Your task to perform on an android device: allow cookies in the chrome app Image 0: 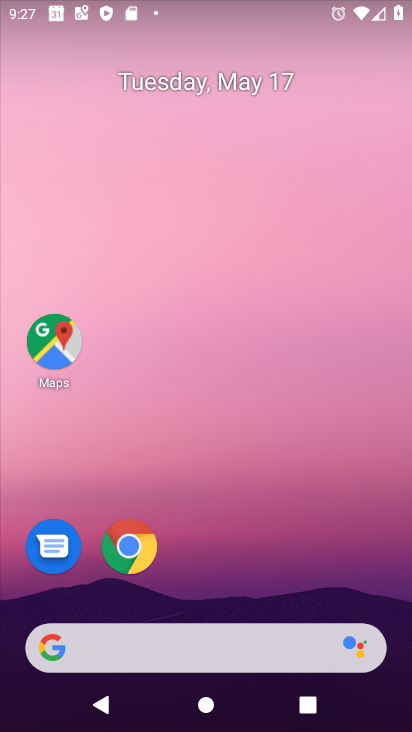
Step 0: click (129, 551)
Your task to perform on an android device: allow cookies in the chrome app Image 1: 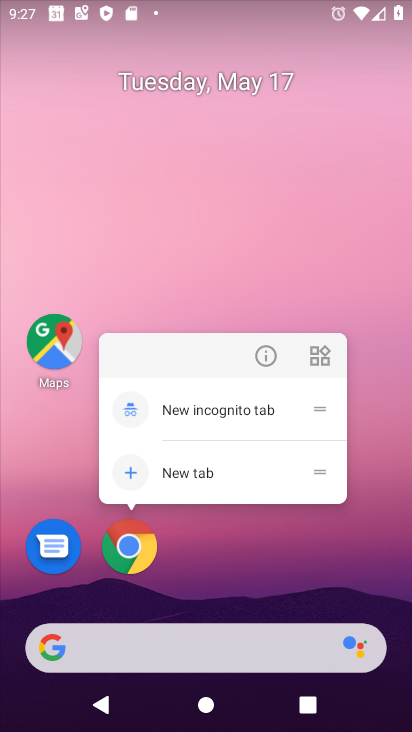
Step 1: click (128, 551)
Your task to perform on an android device: allow cookies in the chrome app Image 2: 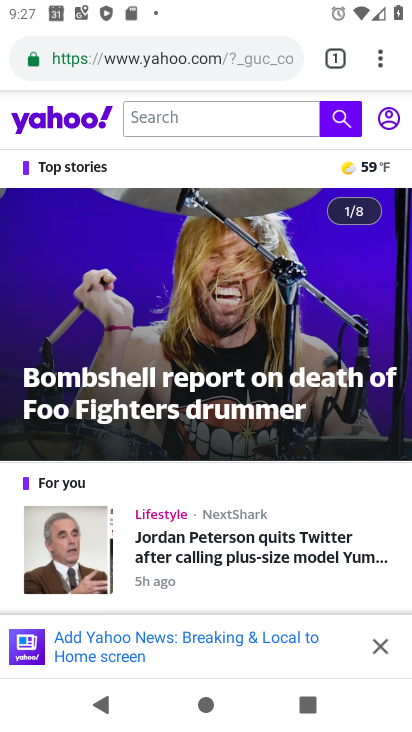
Step 2: click (386, 53)
Your task to perform on an android device: allow cookies in the chrome app Image 3: 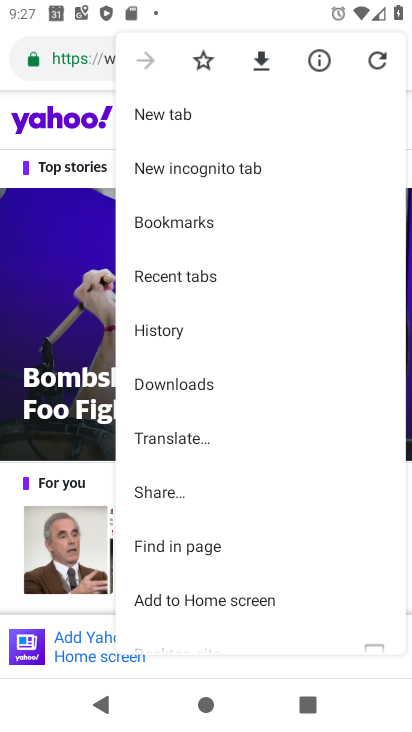
Step 3: drag from (257, 554) to (279, 311)
Your task to perform on an android device: allow cookies in the chrome app Image 4: 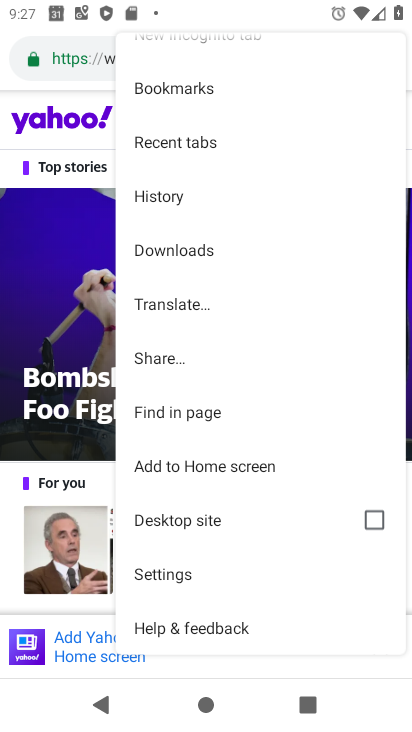
Step 4: click (219, 565)
Your task to perform on an android device: allow cookies in the chrome app Image 5: 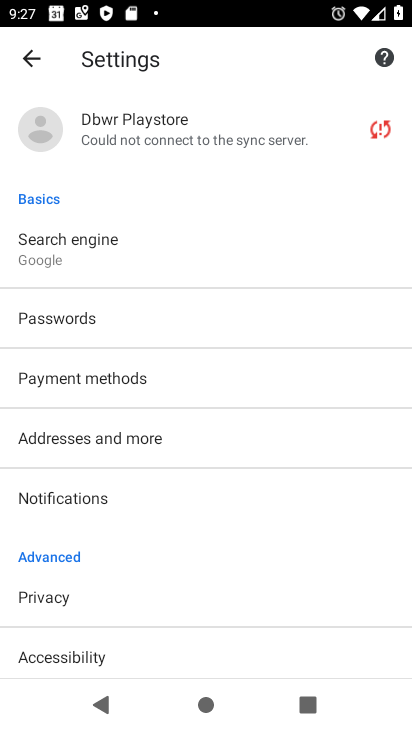
Step 5: drag from (212, 581) to (241, 244)
Your task to perform on an android device: allow cookies in the chrome app Image 6: 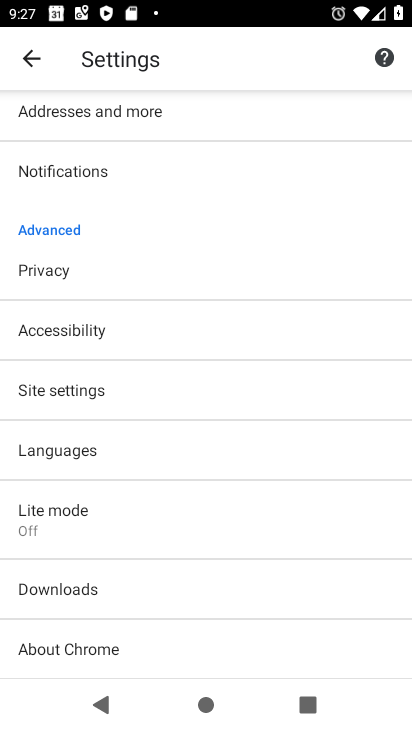
Step 6: click (169, 390)
Your task to perform on an android device: allow cookies in the chrome app Image 7: 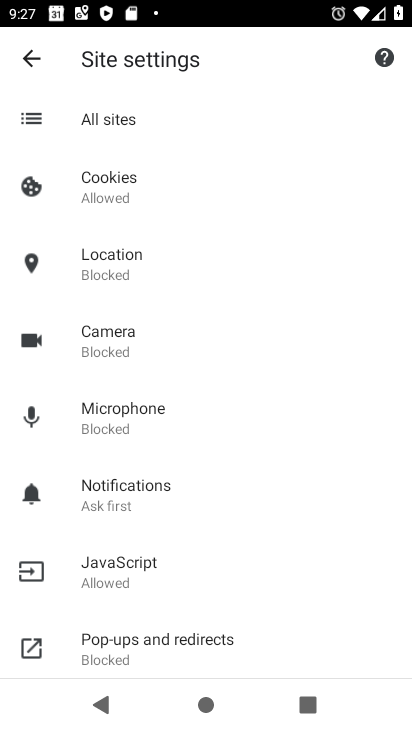
Step 7: click (218, 176)
Your task to perform on an android device: allow cookies in the chrome app Image 8: 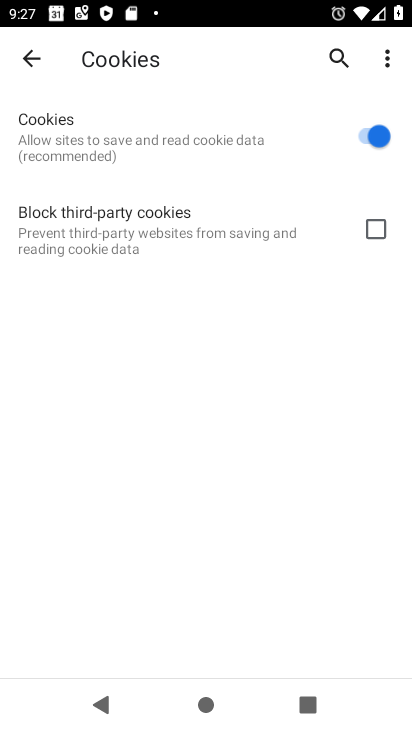
Step 8: task complete